Your task to perform on an android device: open app "Walmart Shopping & Grocery" Image 0: 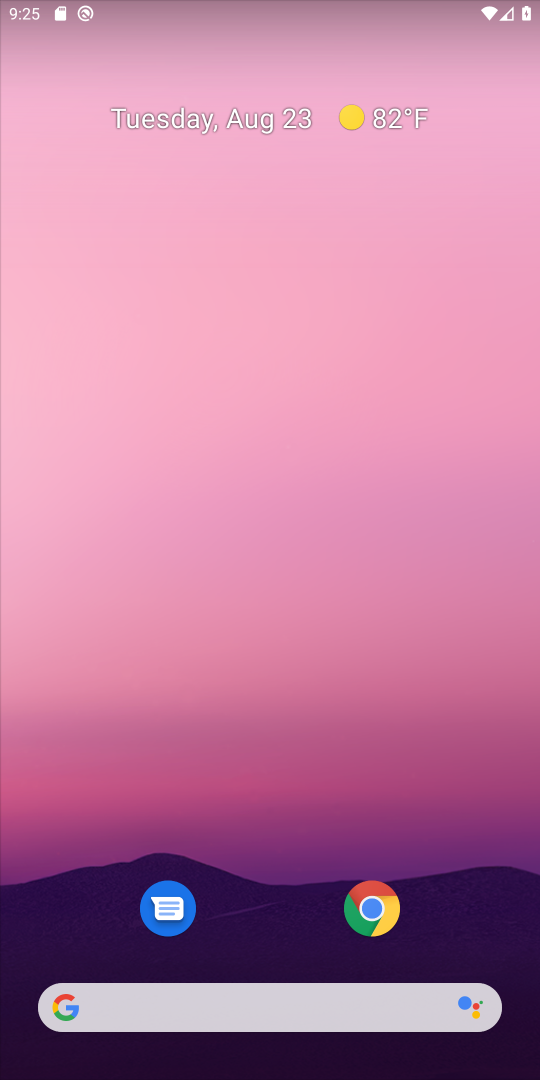
Step 0: drag from (236, 947) to (532, 130)
Your task to perform on an android device: open app "Walmart Shopping & Grocery" Image 1: 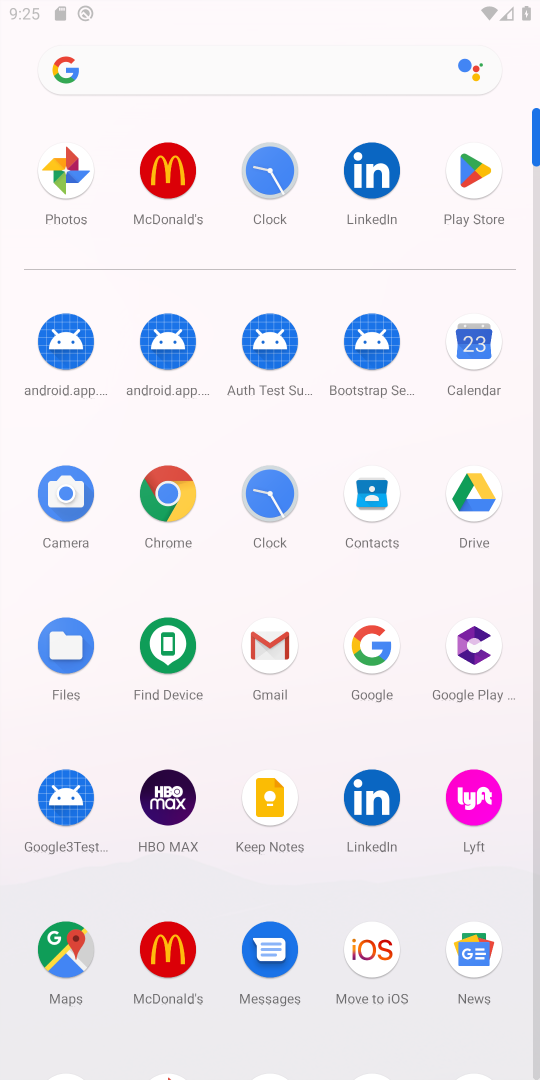
Step 1: click (488, 199)
Your task to perform on an android device: open app "Walmart Shopping & Grocery" Image 2: 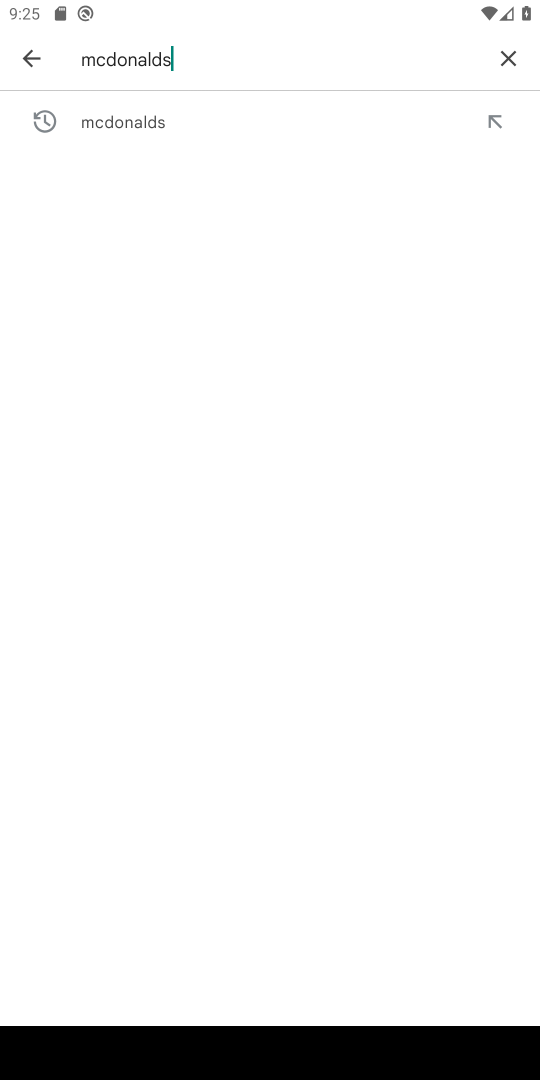
Step 2: click (502, 48)
Your task to perform on an android device: open app "Walmart Shopping & Grocery" Image 3: 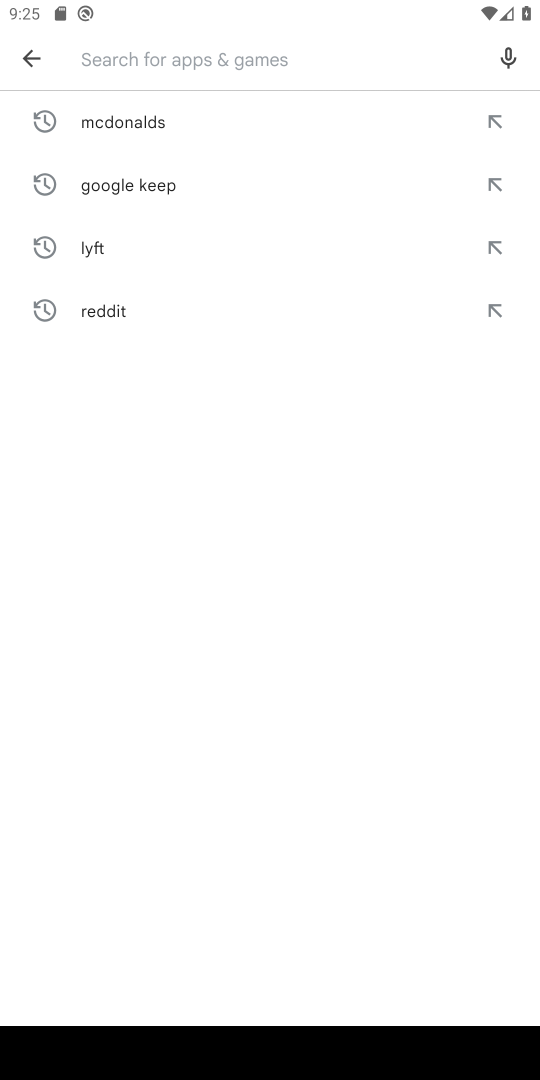
Step 3: type "walmart "
Your task to perform on an android device: open app "Walmart Shopping & Grocery" Image 4: 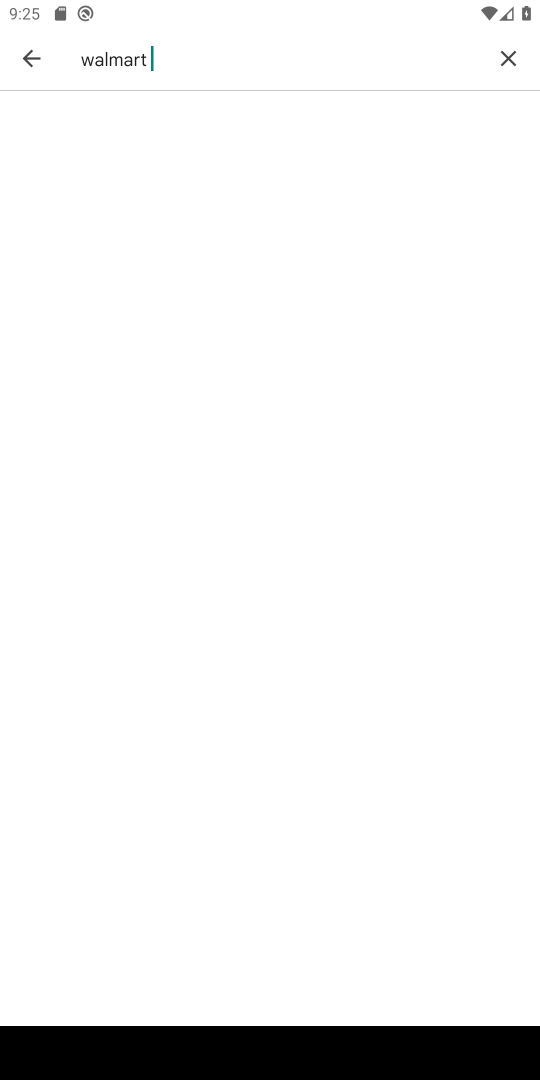
Step 4: click (204, 65)
Your task to perform on an android device: open app "Walmart Shopping & Grocery" Image 5: 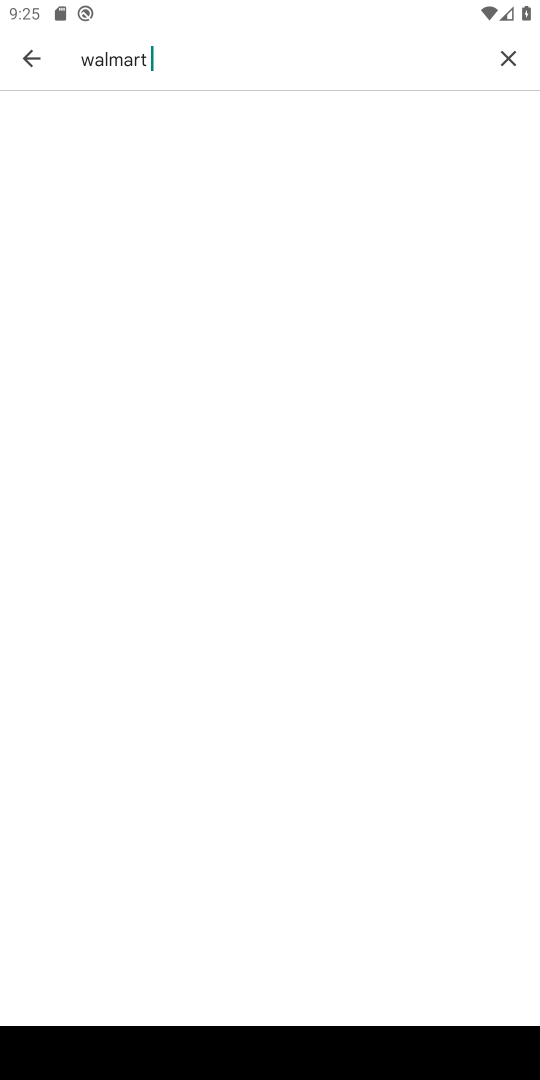
Step 5: type "shopping "
Your task to perform on an android device: open app "Walmart Shopping & Grocery" Image 6: 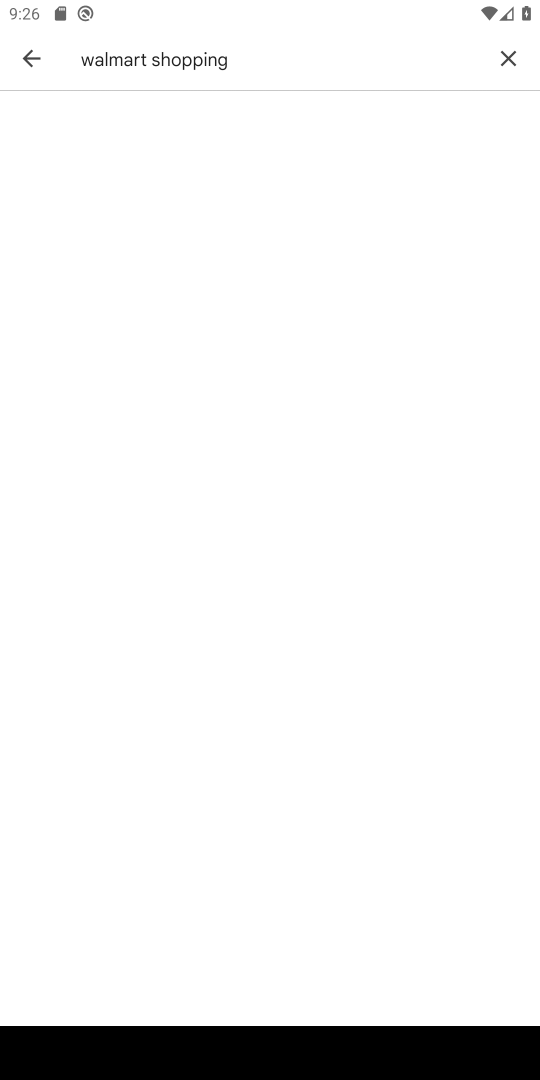
Step 6: click (176, 160)
Your task to perform on an android device: open app "Walmart Shopping & Grocery" Image 7: 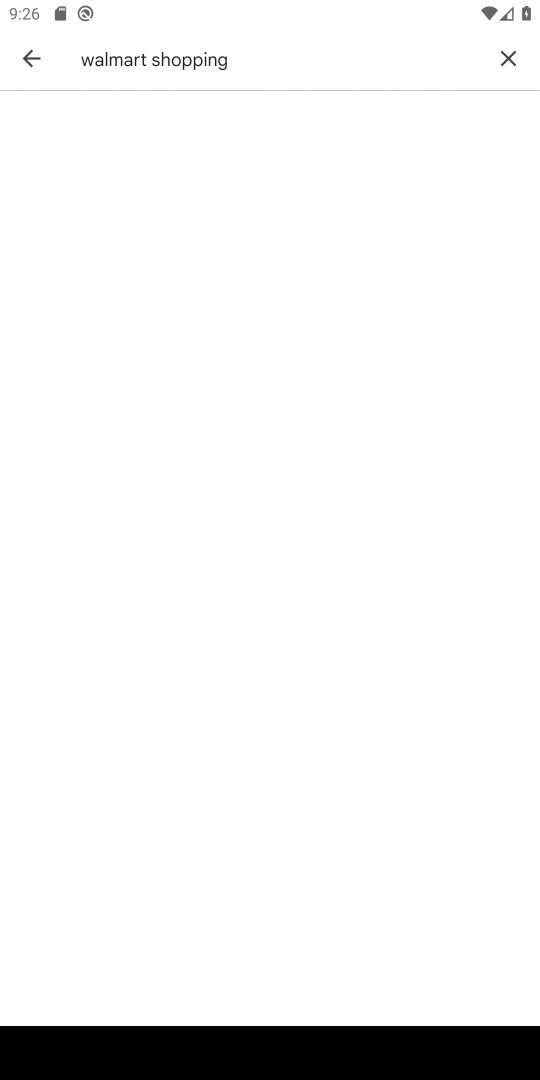
Step 7: click (176, 160)
Your task to perform on an android device: open app "Walmart Shopping & Grocery" Image 8: 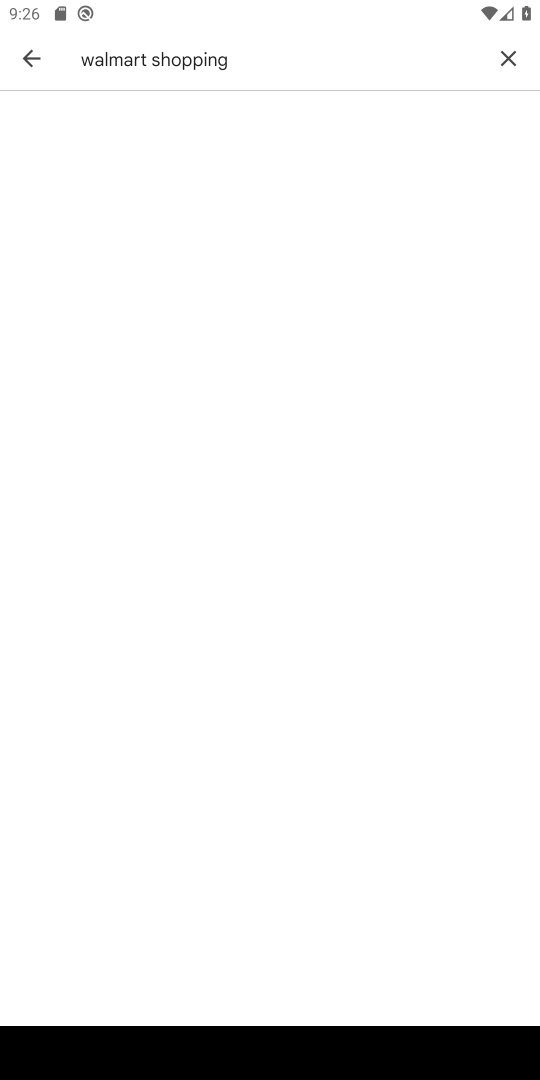
Step 8: click (26, 39)
Your task to perform on an android device: open app "Walmart Shopping & Grocery" Image 9: 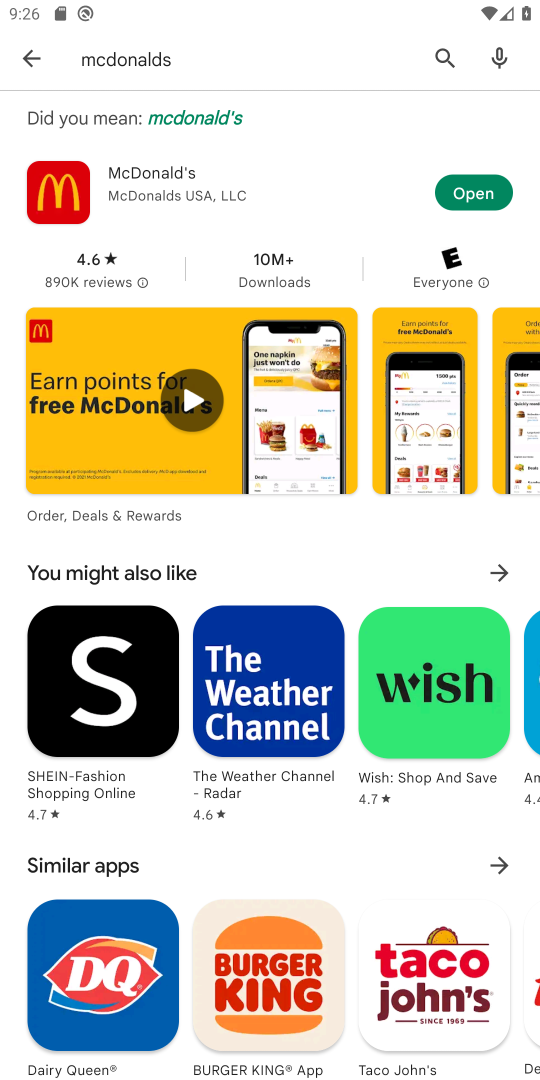
Step 9: click (27, 45)
Your task to perform on an android device: open app "Walmart Shopping & Grocery" Image 10: 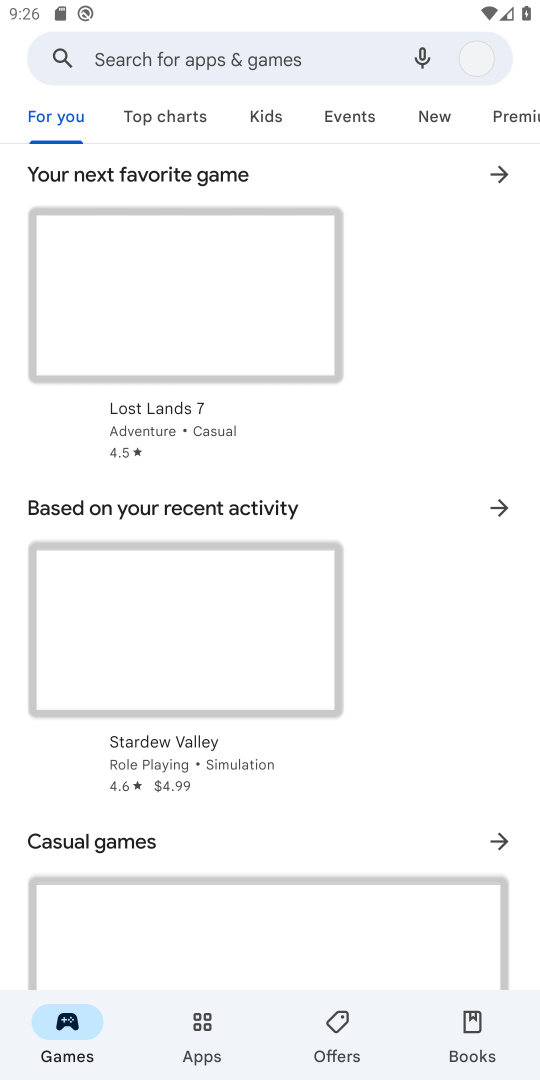
Step 10: click (210, 51)
Your task to perform on an android device: open app "Walmart Shopping & Grocery" Image 11: 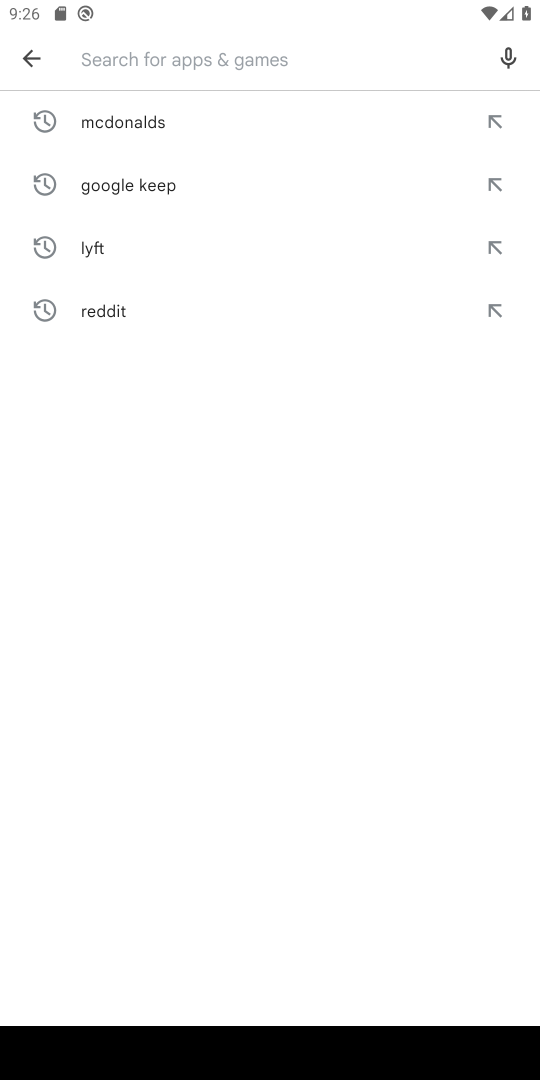
Step 11: type "walmart "
Your task to perform on an android device: open app "Walmart Shopping & Grocery" Image 12: 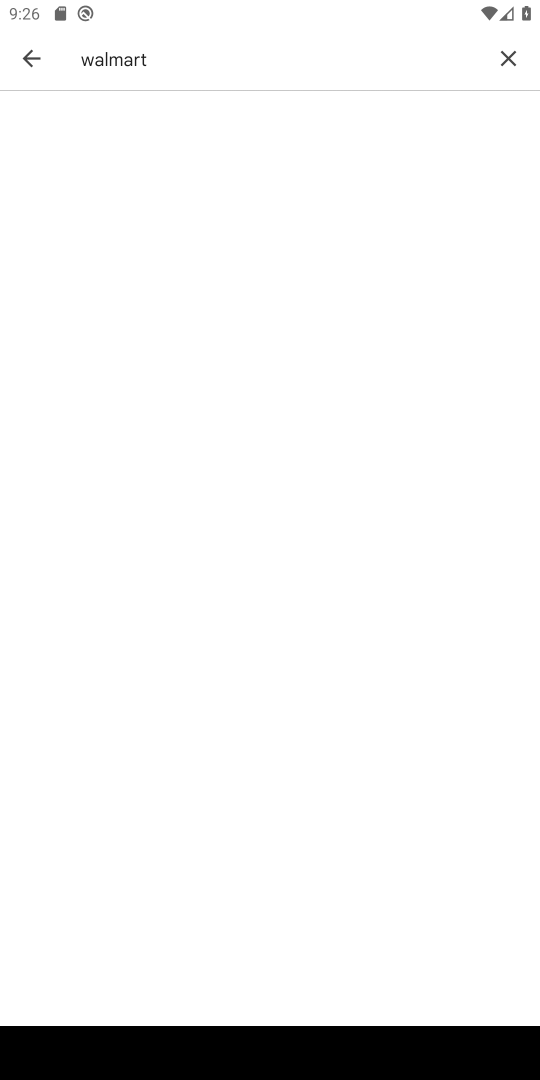
Step 12: click (145, 123)
Your task to perform on an android device: open app "Walmart Shopping & Grocery" Image 13: 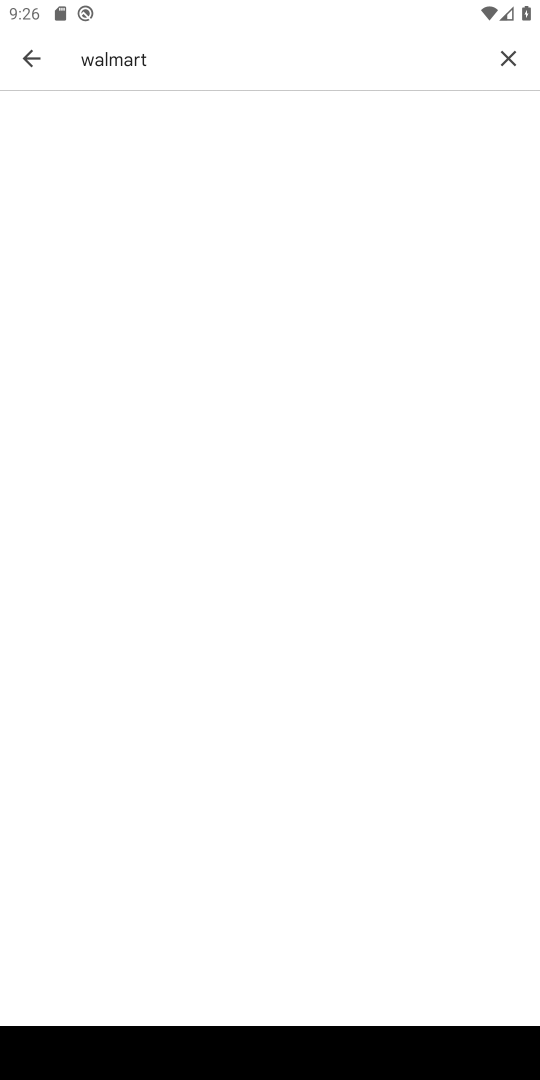
Step 13: click (147, 124)
Your task to perform on an android device: open app "Walmart Shopping & Grocery" Image 14: 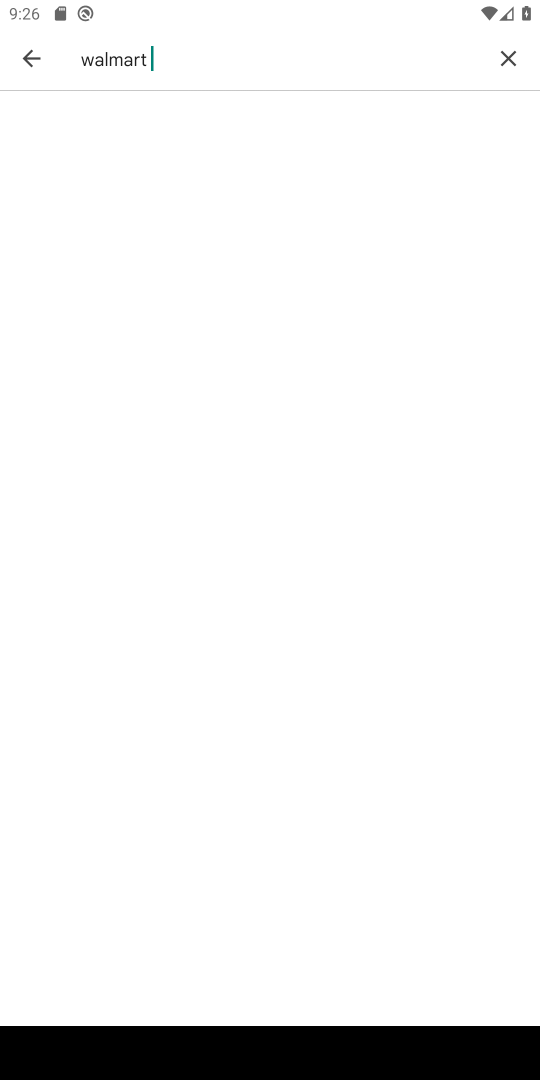
Step 14: task complete